Your task to perform on an android device: Go to Yahoo.com Image 0: 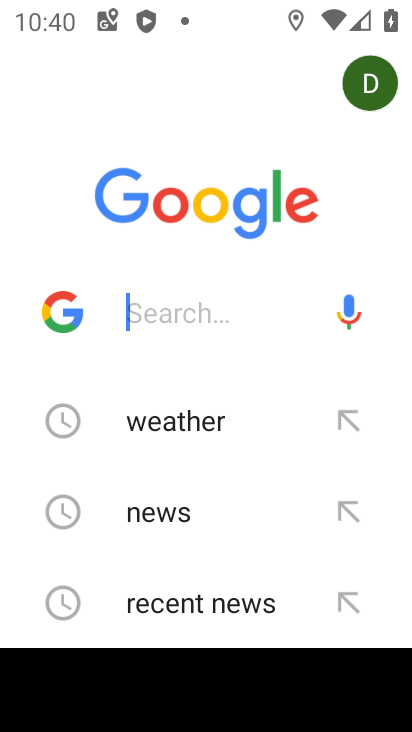
Step 0: press home button
Your task to perform on an android device: Go to Yahoo.com Image 1: 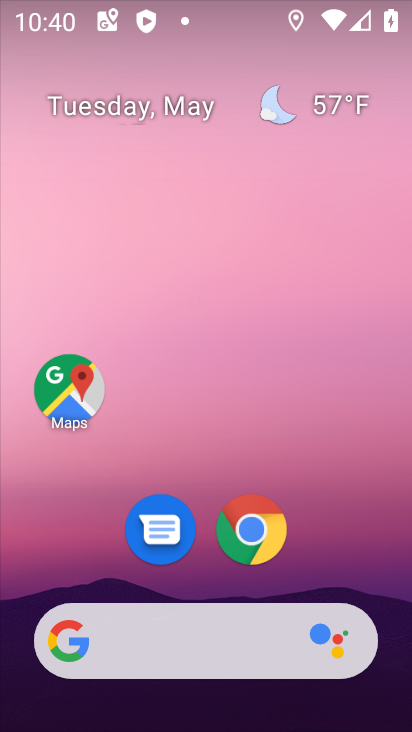
Step 1: drag from (209, 578) to (201, 19)
Your task to perform on an android device: Go to Yahoo.com Image 2: 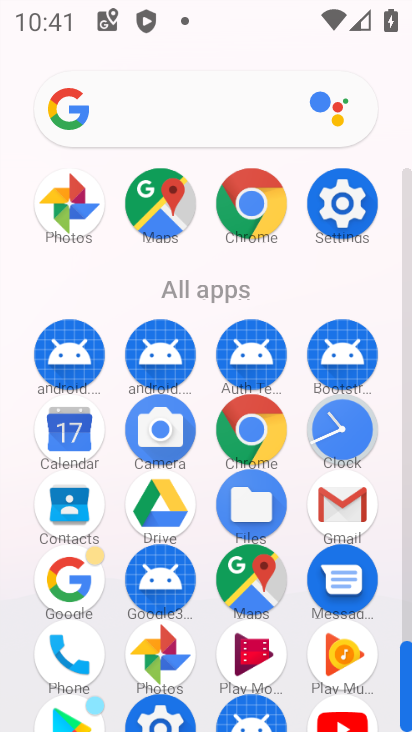
Step 2: click (229, 193)
Your task to perform on an android device: Go to Yahoo.com Image 3: 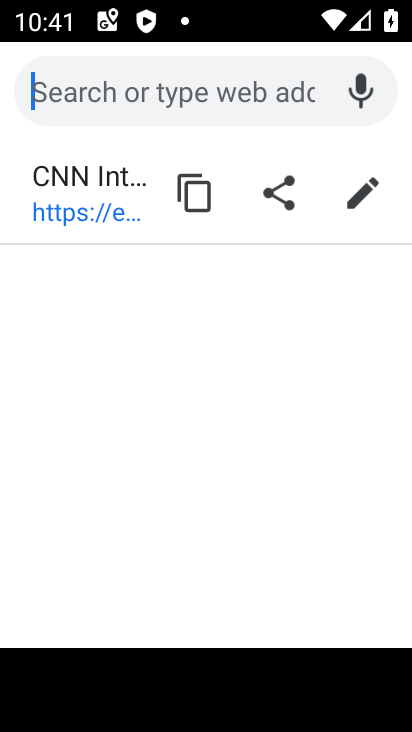
Step 3: click (232, 85)
Your task to perform on an android device: Go to Yahoo.com Image 4: 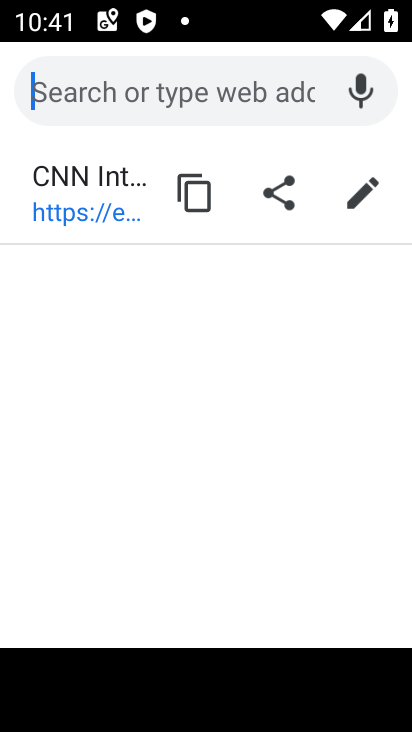
Step 4: click (64, 199)
Your task to perform on an android device: Go to Yahoo.com Image 5: 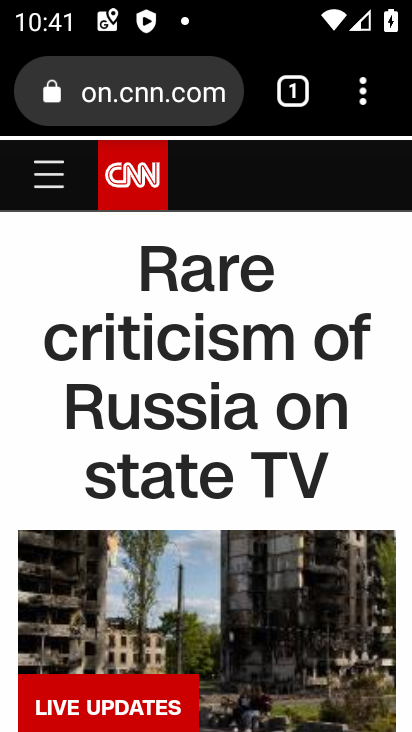
Step 5: click (281, 107)
Your task to perform on an android device: Go to Yahoo.com Image 6: 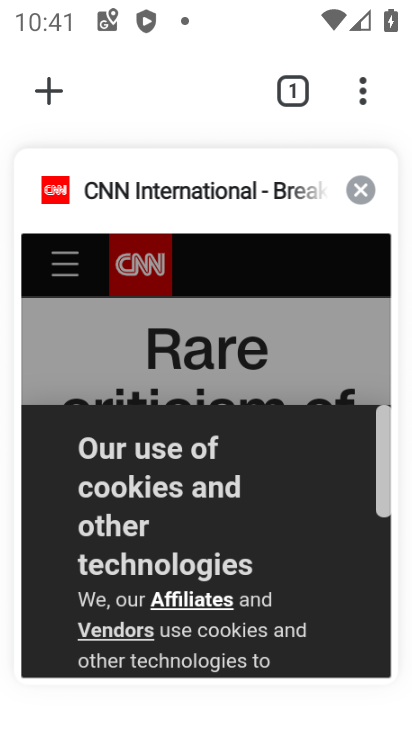
Step 6: click (55, 97)
Your task to perform on an android device: Go to Yahoo.com Image 7: 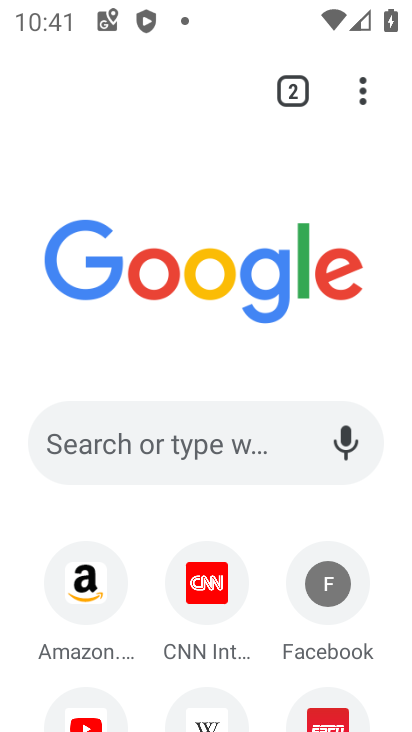
Step 7: drag from (145, 610) to (193, 173)
Your task to perform on an android device: Go to Yahoo.com Image 8: 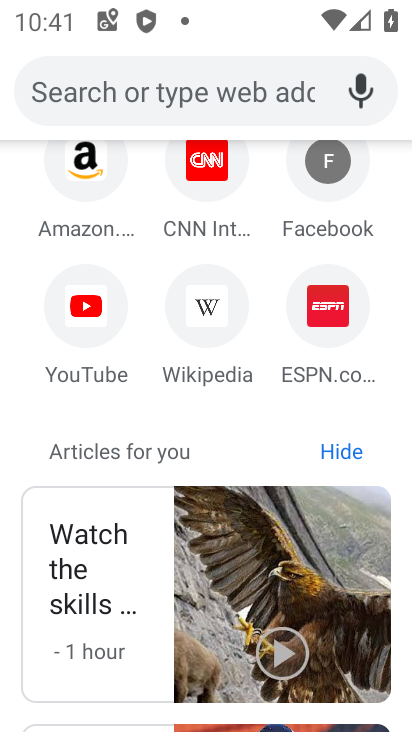
Step 8: click (225, 75)
Your task to perform on an android device: Go to Yahoo.com Image 9: 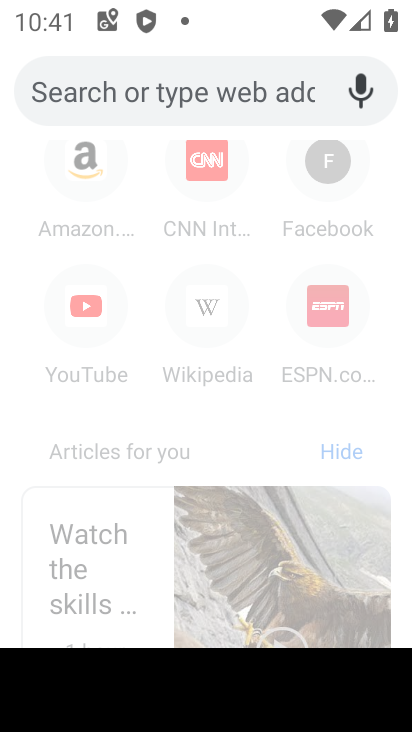
Step 9: type "yahoo"
Your task to perform on an android device: Go to Yahoo.com Image 10: 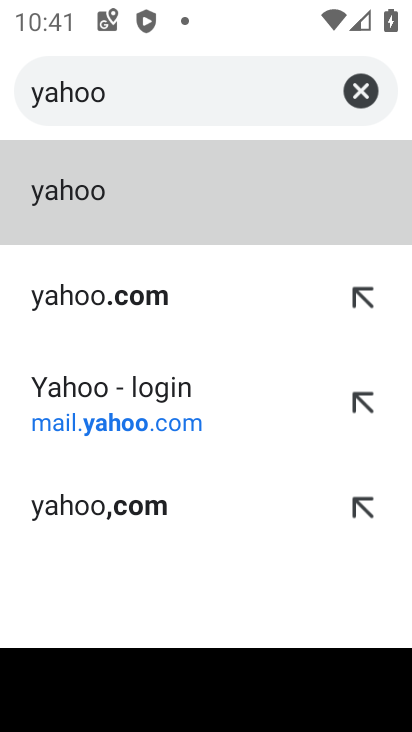
Step 10: click (290, 327)
Your task to perform on an android device: Go to Yahoo.com Image 11: 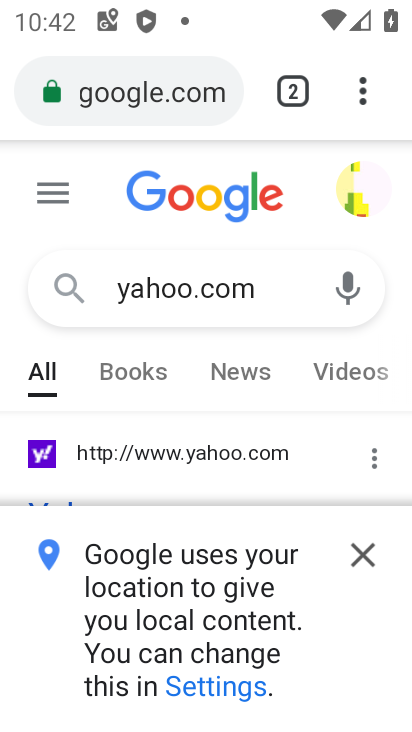
Step 11: click (198, 465)
Your task to perform on an android device: Go to Yahoo.com Image 12: 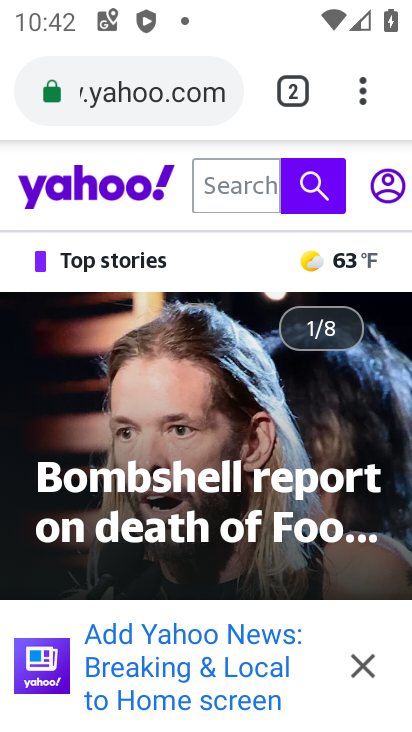
Step 12: task complete